Your task to perform on an android device: check android version Image 0: 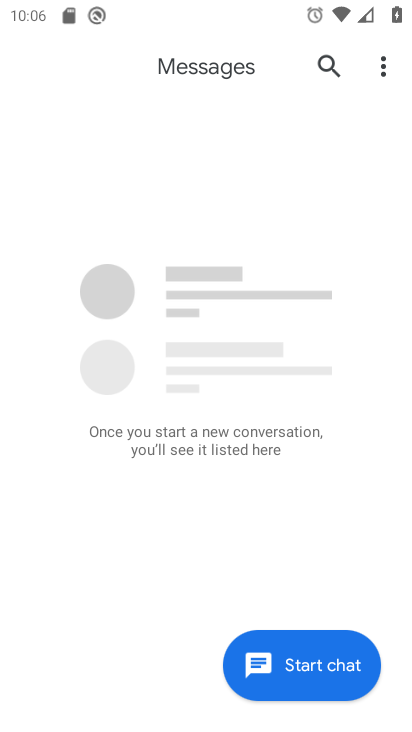
Step 0: press home button
Your task to perform on an android device: check android version Image 1: 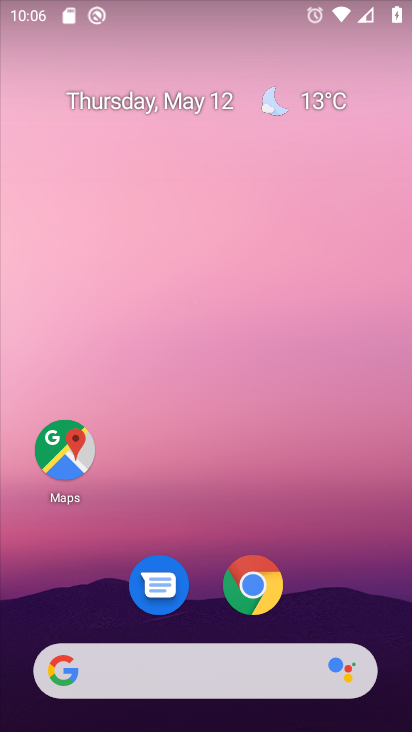
Step 1: drag from (256, 466) to (238, 99)
Your task to perform on an android device: check android version Image 2: 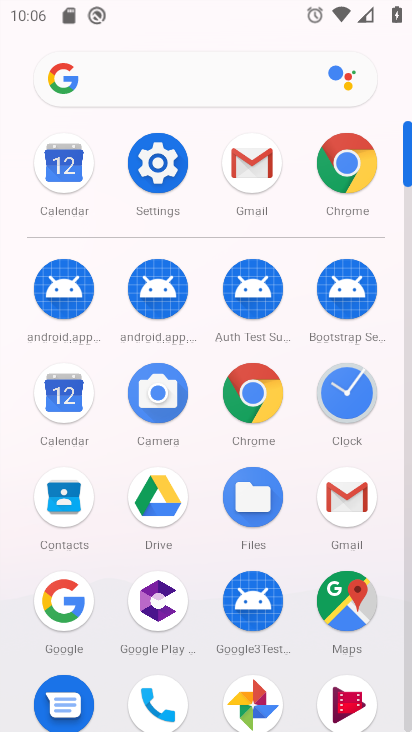
Step 2: click (172, 154)
Your task to perform on an android device: check android version Image 3: 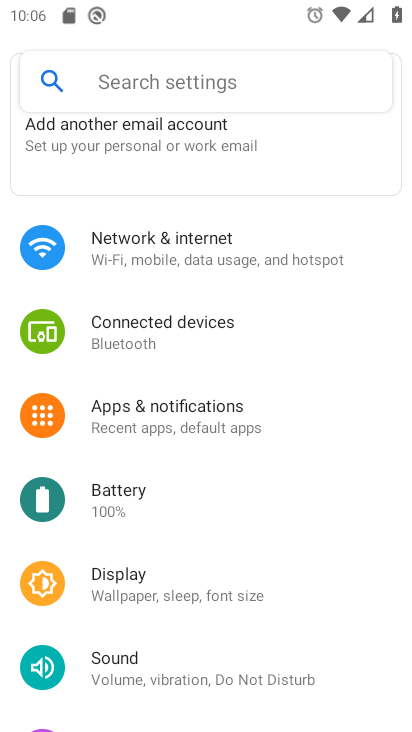
Step 3: drag from (200, 540) to (196, 205)
Your task to perform on an android device: check android version Image 4: 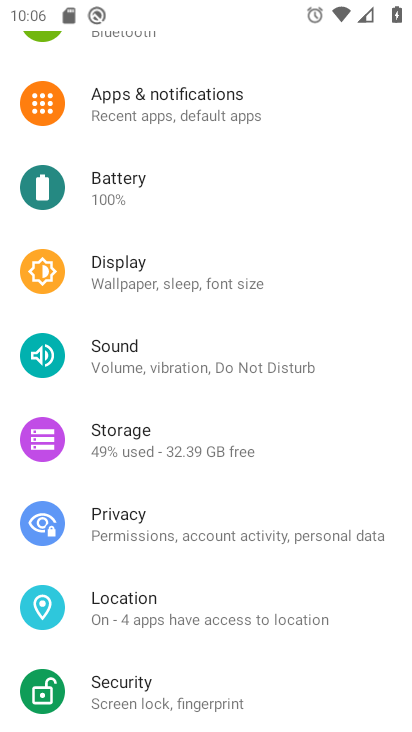
Step 4: drag from (193, 511) to (185, 170)
Your task to perform on an android device: check android version Image 5: 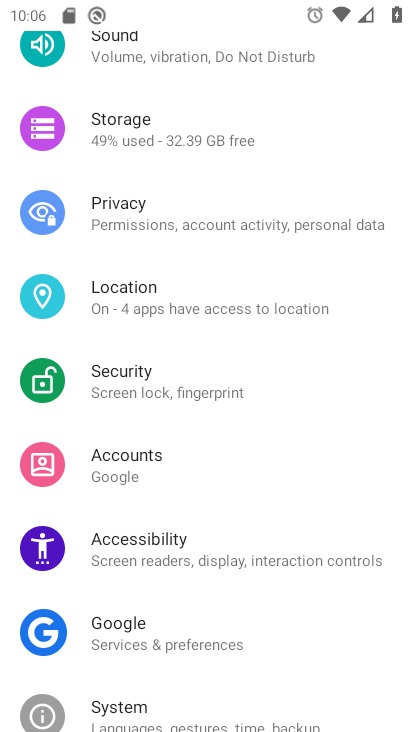
Step 5: drag from (219, 604) to (223, 354)
Your task to perform on an android device: check android version Image 6: 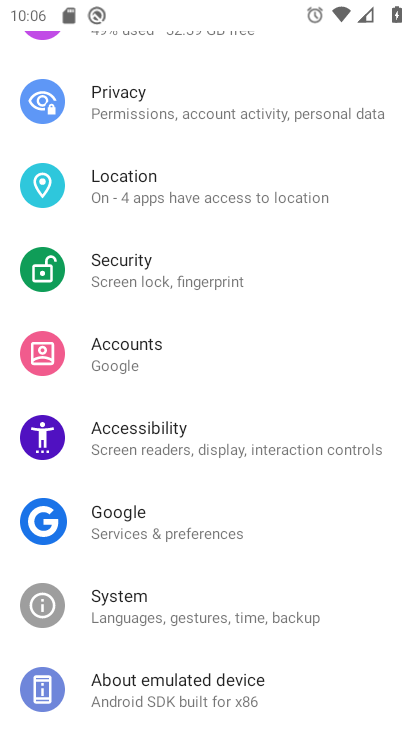
Step 6: click (209, 680)
Your task to perform on an android device: check android version Image 7: 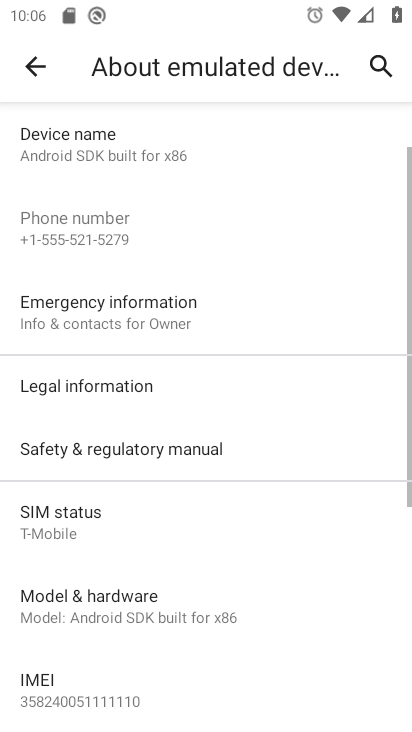
Step 7: drag from (211, 511) to (191, 165)
Your task to perform on an android device: check android version Image 8: 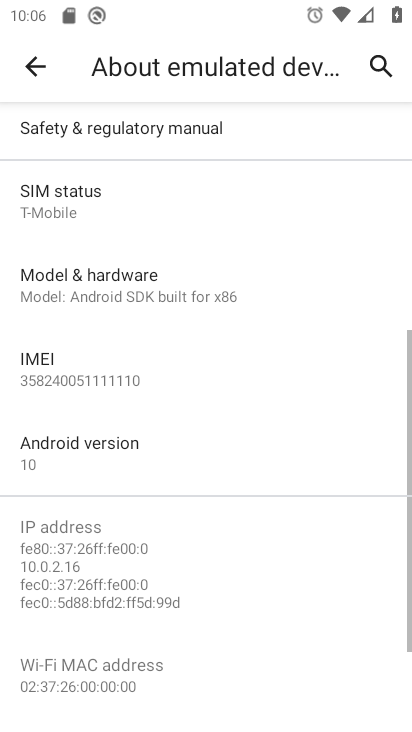
Step 8: click (159, 454)
Your task to perform on an android device: check android version Image 9: 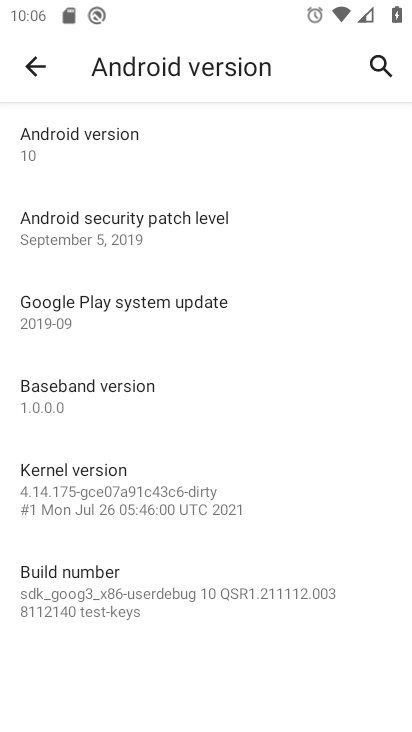
Step 9: task complete